Your task to perform on an android device: Go to internet settings Image 0: 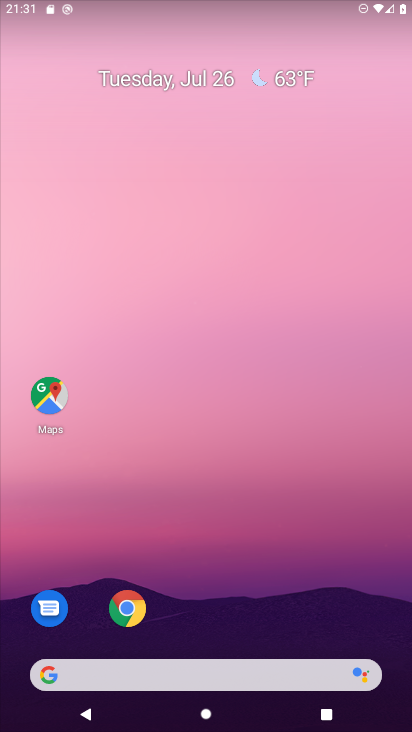
Step 0: click (272, 12)
Your task to perform on an android device: Go to internet settings Image 1: 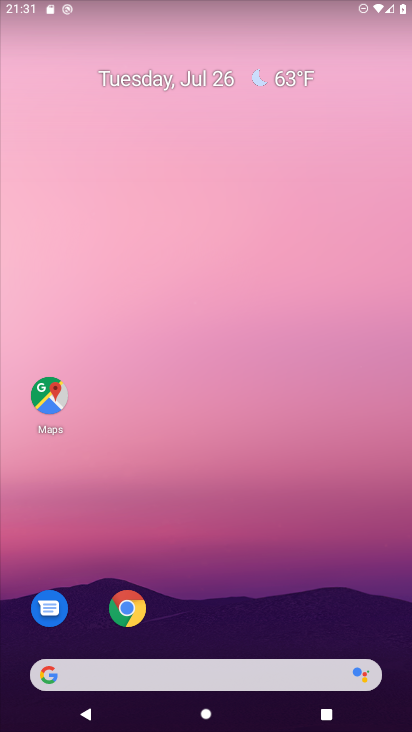
Step 1: drag from (30, 704) to (231, 106)
Your task to perform on an android device: Go to internet settings Image 2: 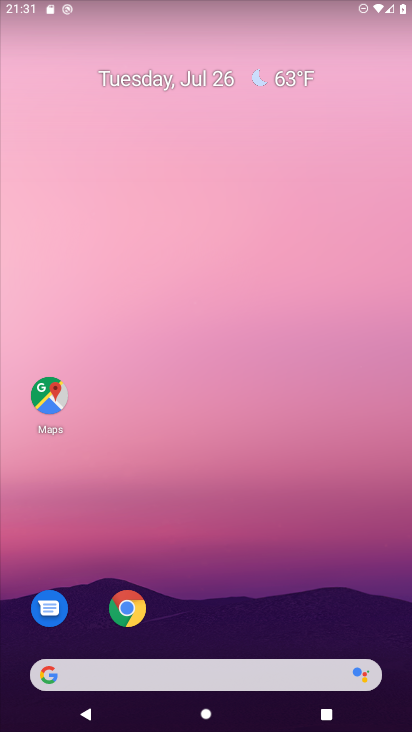
Step 2: drag from (33, 659) to (200, 165)
Your task to perform on an android device: Go to internet settings Image 3: 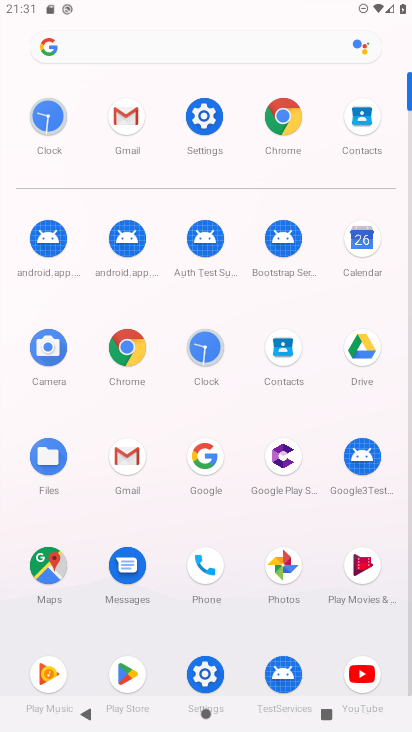
Step 3: click (202, 666)
Your task to perform on an android device: Go to internet settings Image 4: 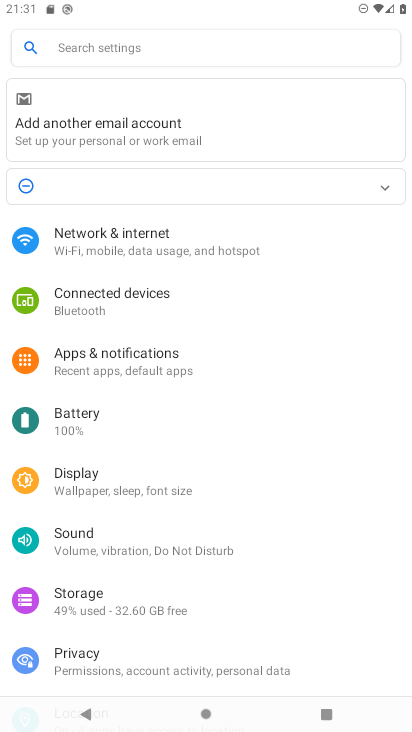
Step 4: click (122, 244)
Your task to perform on an android device: Go to internet settings Image 5: 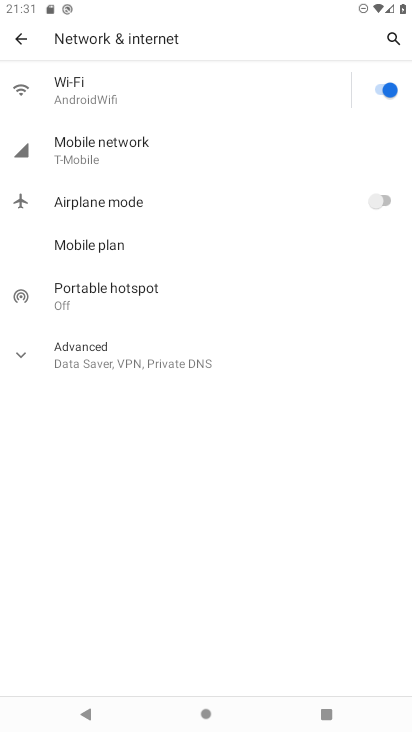
Step 5: task complete